Your task to perform on an android device: change the clock display to analog Image 0: 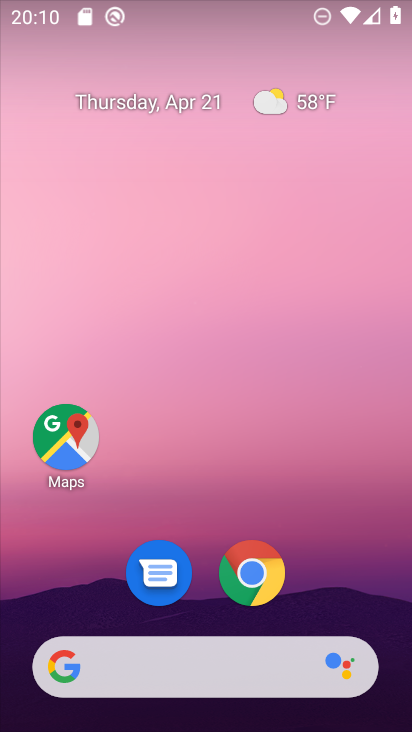
Step 0: drag from (226, 631) to (226, 259)
Your task to perform on an android device: change the clock display to analog Image 1: 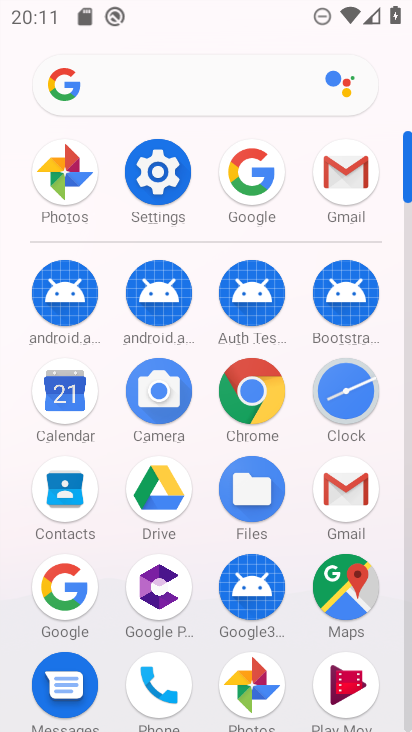
Step 1: click (357, 384)
Your task to perform on an android device: change the clock display to analog Image 2: 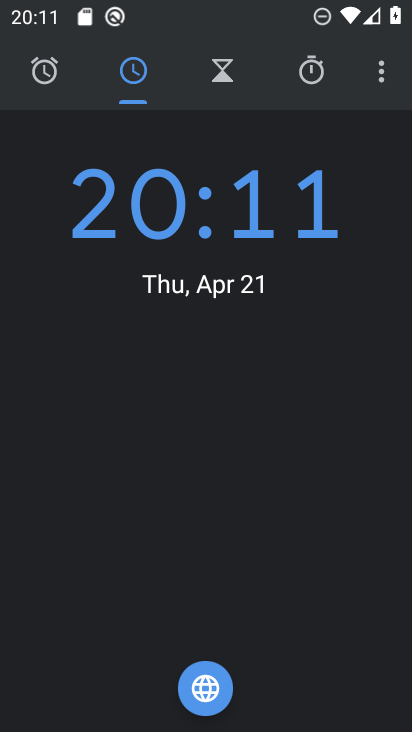
Step 2: click (384, 72)
Your task to perform on an android device: change the clock display to analog Image 3: 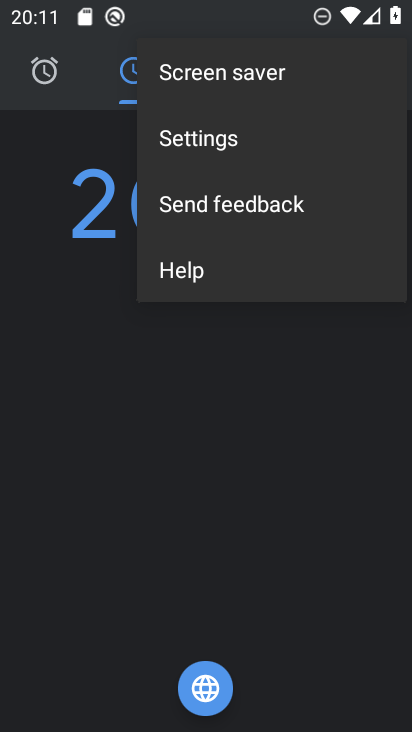
Step 3: click (189, 136)
Your task to perform on an android device: change the clock display to analog Image 4: 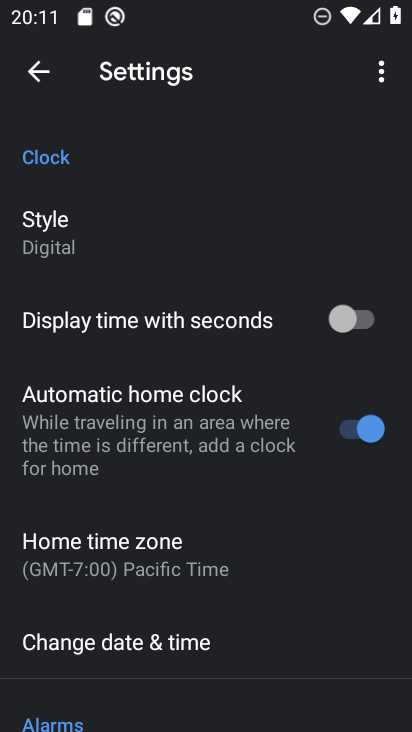
Step 4: click (44, 239)
Your task to perform on an android device: change the clock display to analog Image 5: 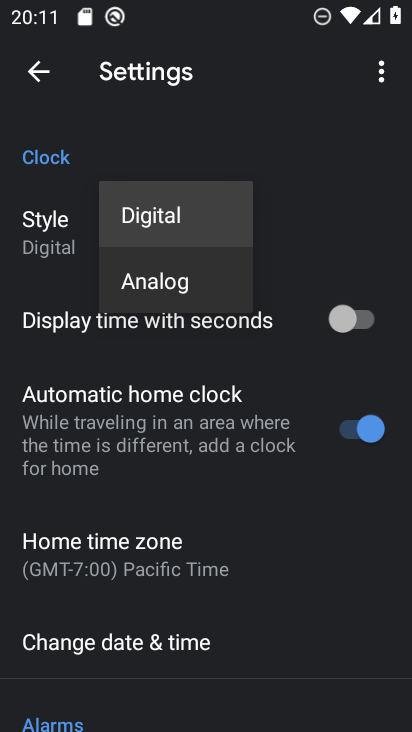
Step 5: click (144, 291)
Your task to perform on an android device: change the clock display to analog Image 6: 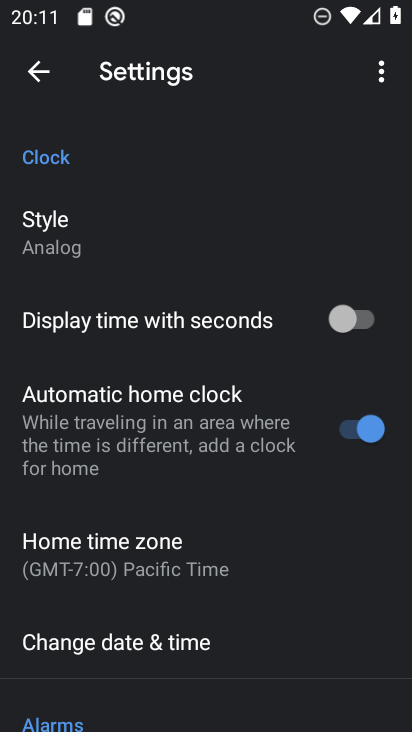
Step 6: task complete